Your task to perform on an android device: Clear the cart on newegg.com. Search for macbook on newegg.com, select the first entry, add it to the cart, then select checkout. Image 0: 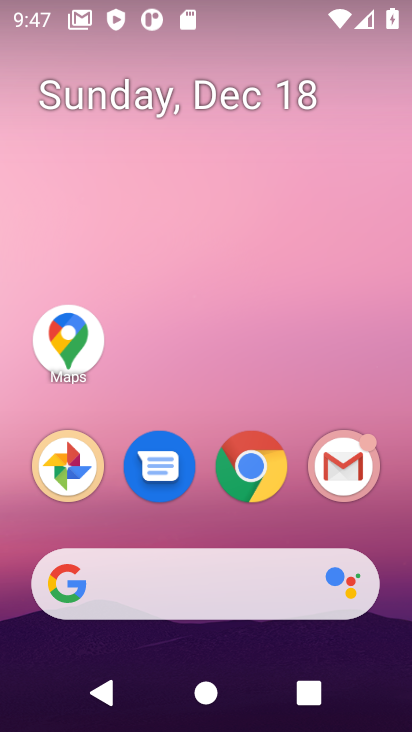
Step 0: click (265, 470)
Your task to perform on an android device: Clear the cart on newegg.com. Search for macbook on newegg.com, select the first entry, add it to the cart, then select checkout. Image 1: 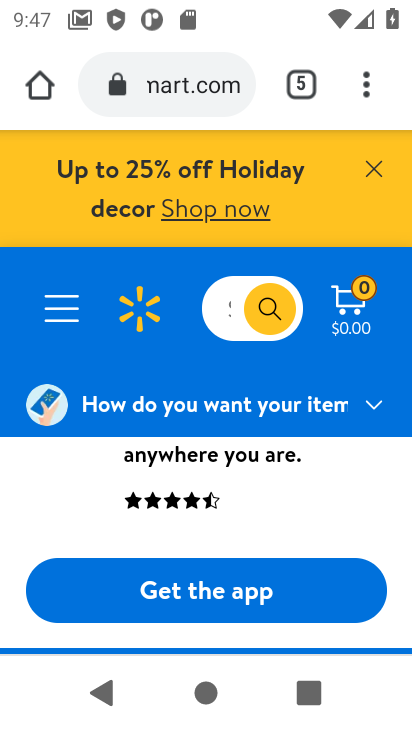
Step 1: click (213, 92)
Your task to perform on an android device: Clear the cart on newegg.com. Search for macbook on newegg.com, select the first entry, add it to the cart, then select checkout. Image 2: 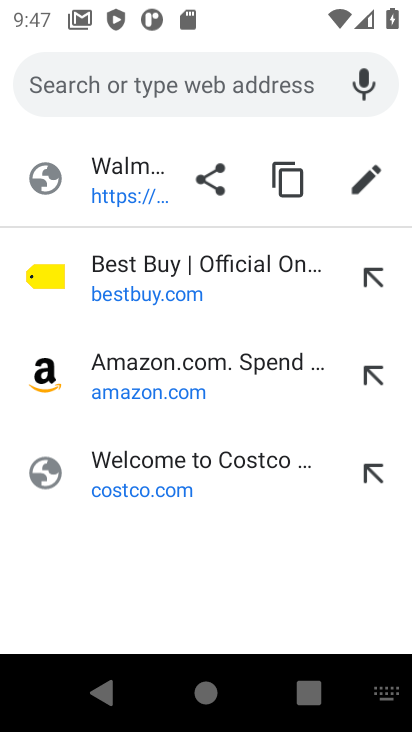
Step 2: type "NEWEGG"
Your task to perform on an android device: Clear the cart on newegg.com. Search for macbook on newegg.com, select the first entry, add it to the cart, then select checkout. Image 3: 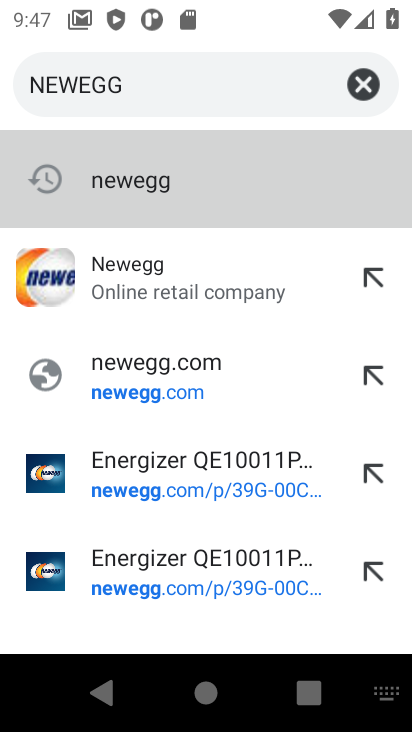
Step 3: click (127, 315)
Your task to perform on an android device: Clear the cart on newegg.com. Search for macbook on newegg.com, select the first entry, add it to the cart, then select checkout. Image 4: 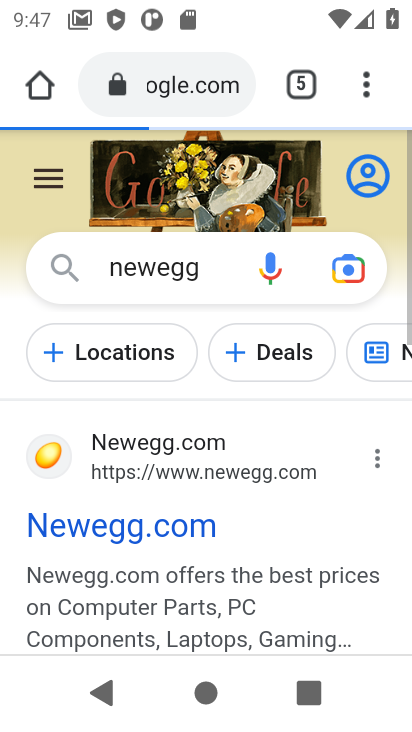
Step 4: click (118, 298)
Your task to perform on an android device: Clear the cart on newegg.com. Search for macbook on newegg.com, select the first entry, add it to the cart, then select checkout. Image 5: 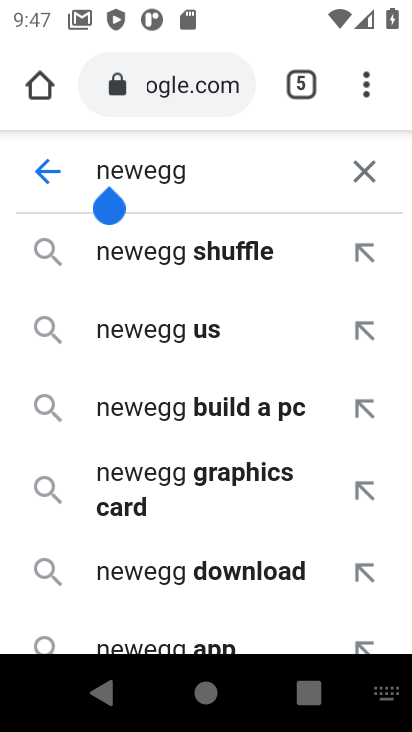
Step 5: click (216, 182)
Your task to perform on an android device: Clear the cart on newegg.com. Search for macbook on newegg.com, select the first entry, add it to the cart, then select checkout. Image 6: 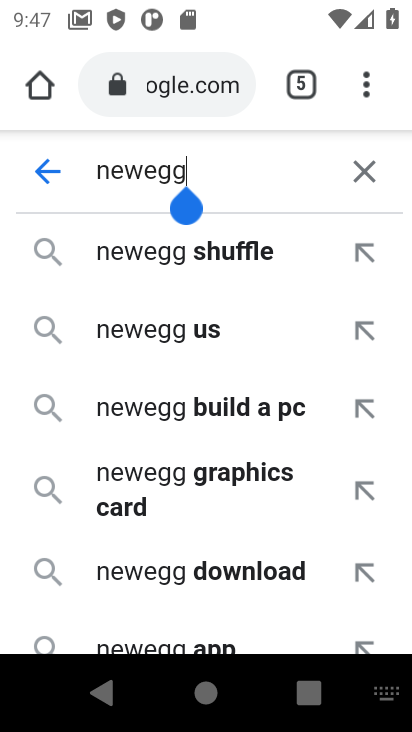
Step 6: click (49, 170)
Your task to perform on an android device: Clear the cart on newegg.com. Search for macbook on newegg.com, select the first entry, add it to the cart, then select checkout. Image 7: 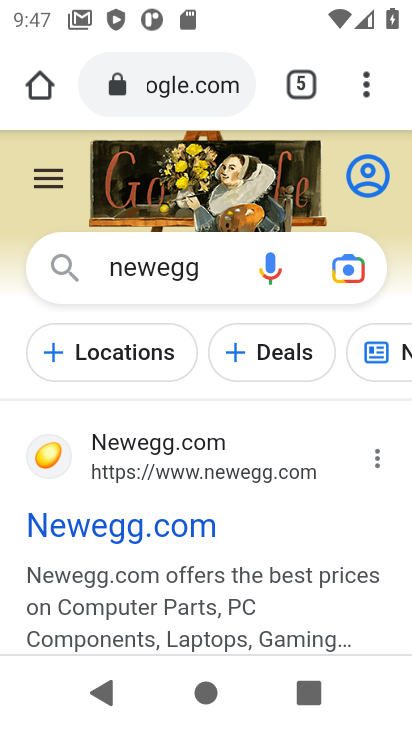
Step 7: click (142, 529)
Your task to perform on an android device: Clear the cart on newegg.com. Search for macbook on newegg.com, select the first entry, add it to the cart, then select checkout. Image 8: 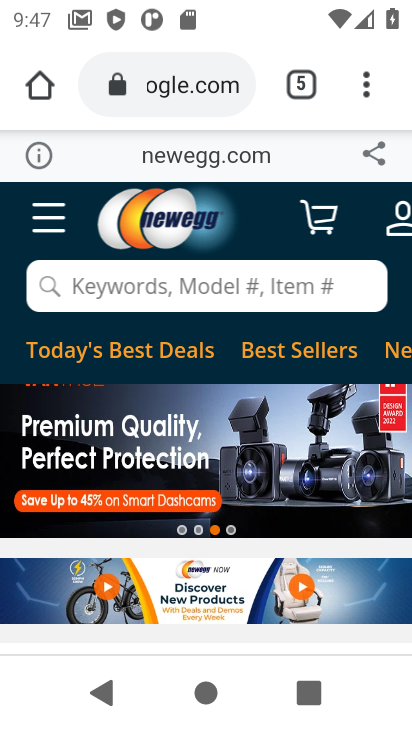
Step 8: click (207, 278)
Your task to perform on an android device: Clear the cart on newegg.com. Search for macbook on newegg.com, select the first entry, add it to the cart, then select checkout. Image 9: 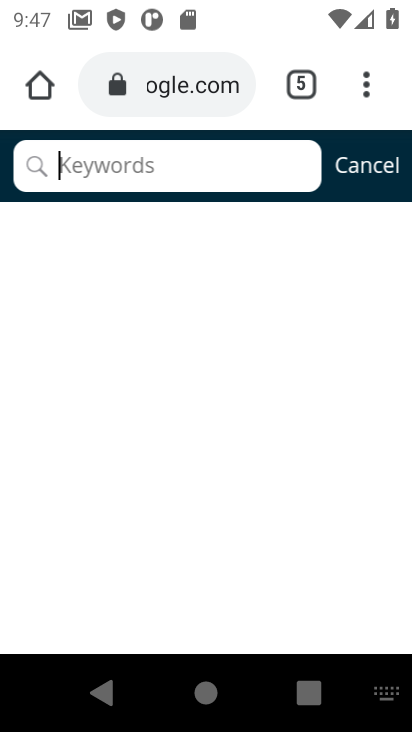
Step 9: type "MACBOOK"
Your task to perform on an android device: Clear the cart on newegg.com. Search for macbook on newegg.com, select the first entry, add it to the cart, then select checkout. Image 10: 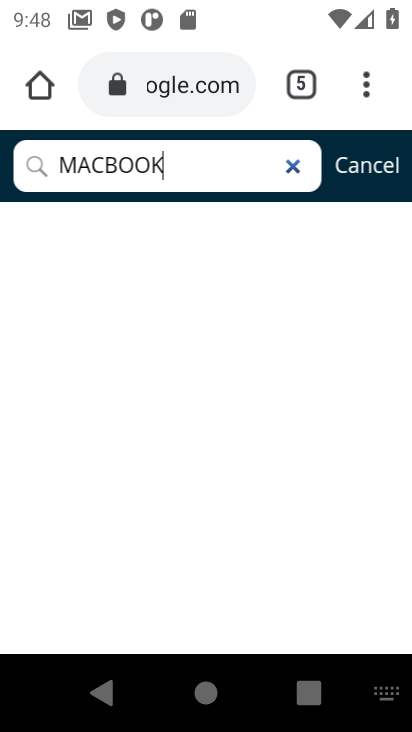
Step 10: task complete